Your task to perform on an android device: turn notification dots on Image 0: 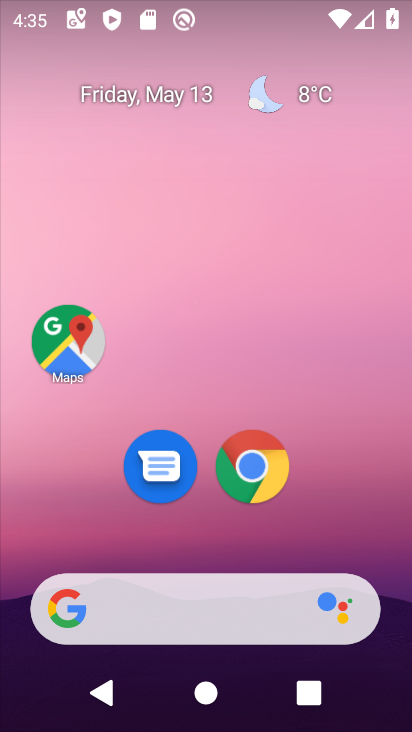
Step 0: click (257, 460)
Your task to perform on an android device: turn notification dots on Image 1: 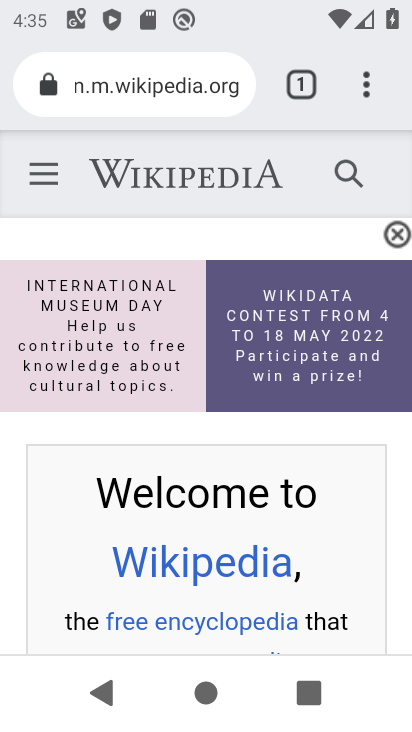
Step 1: press home button
Your task to perform on an android device: turn notification dots on Image 2: 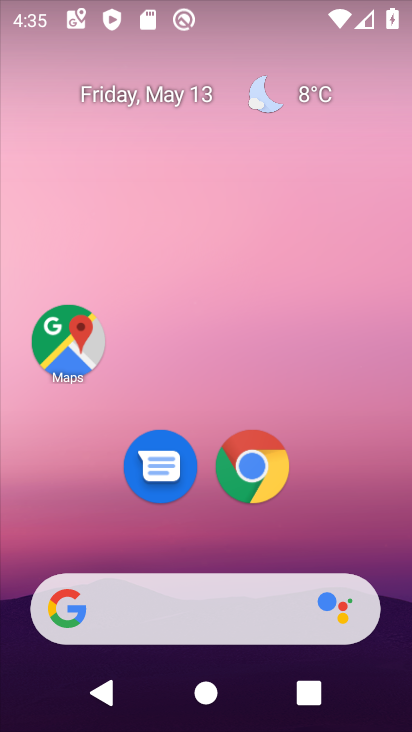
Step 2: drag from (386, 597) to (292, 45)
Your task to perform on an android device: turn notification dots on Image 3: 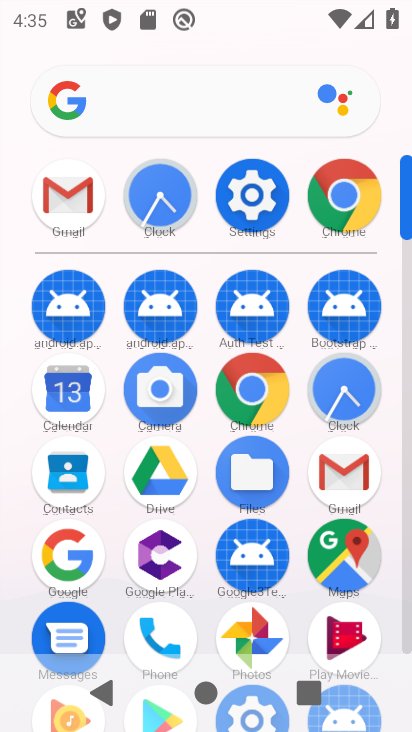
Step 3: click (252, 204)
Your task to perform on an android device: turn notification dots on Image 4: 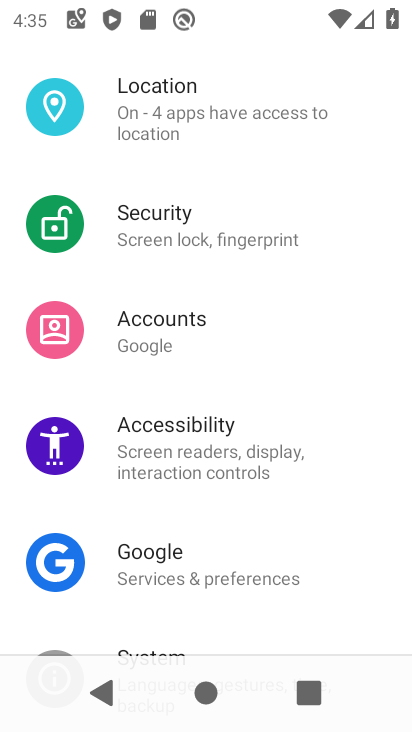
Step 4: drag from (329, 152) to (281, 597)
Your task to perform on an android device: turn notification dots on Image 5: 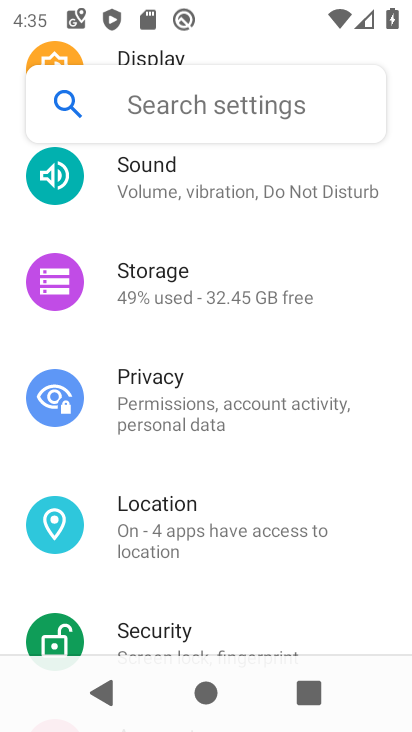
Step 5: drag from (326, 231) to (288, 607)
Your task to perform on an android device: turn notification dots on Image 6: 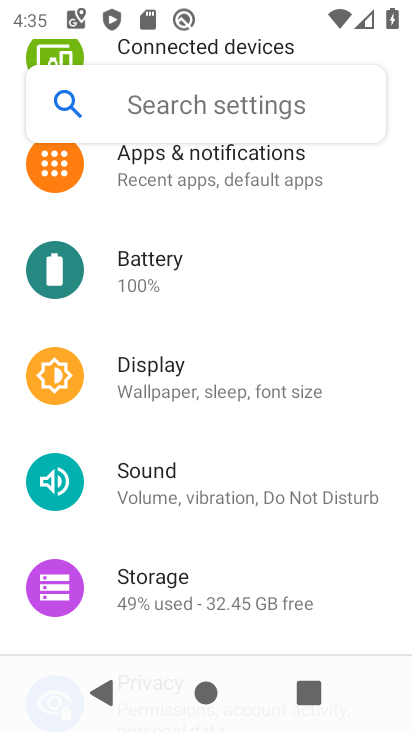
Step 6: click (196, 189)
Your task to perform on an android device: turn notification dots on Image 7: 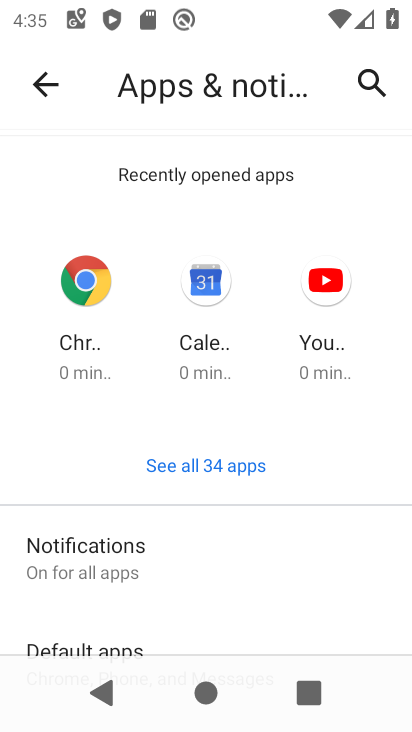
Step 7: click (113, 549)
Your task to perform on an android device: turn notification dots on Image 8: 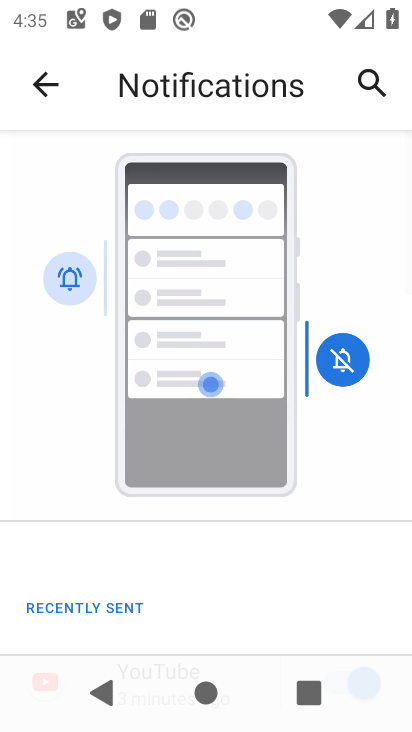
Step 8: drag from (298, 597) to (187, 81)
Your task to perform on an android device: turn notification dots on Image 9: 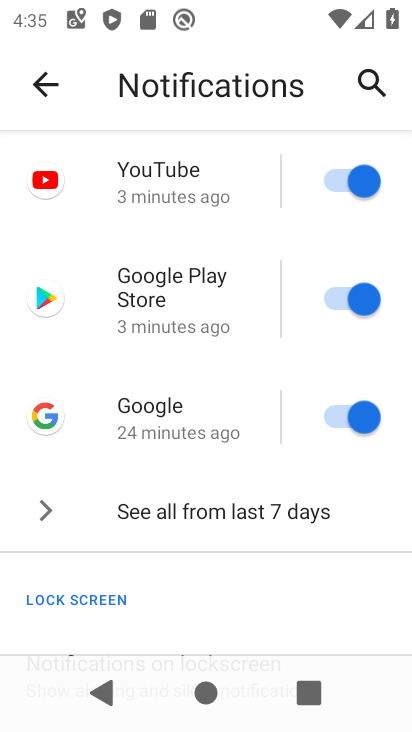
Step 9: drag from (215, 251) to (199, 76)
Your task to perform on an android device: turn notification dots on Image 10: 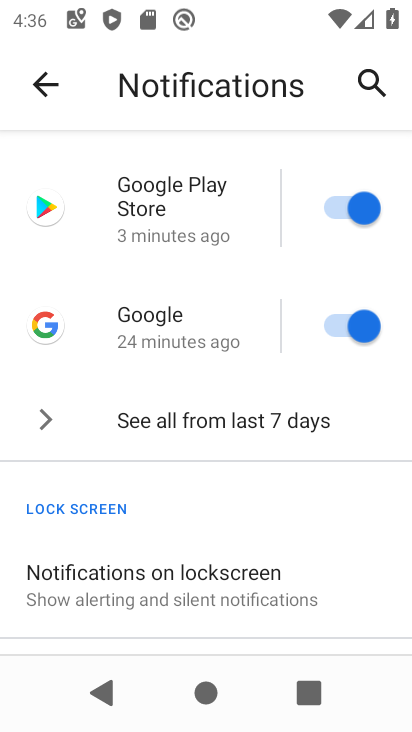
Step 10: drag from (181, 557) to (165, 151)
Your task to perform on an android device: turn notification dots on Image 11: 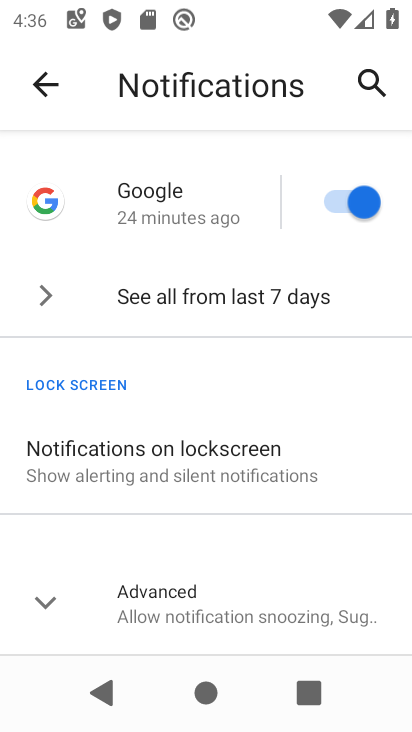
Step 11: click (44, 608)
Your task to perform on an android device: turn notification dots on Image 12: 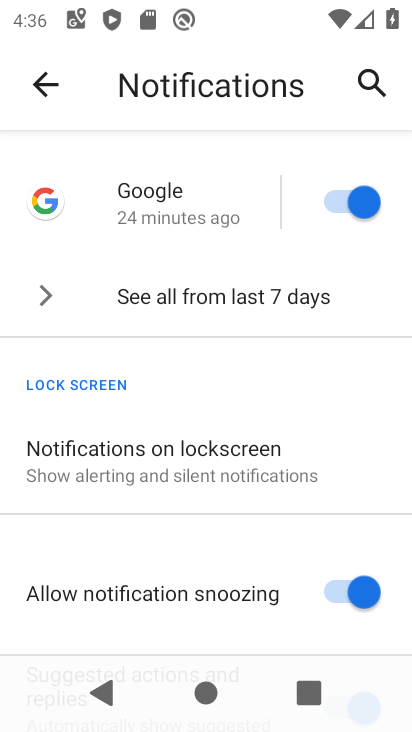
Step 12: drag from (201, 634) to (246, 140)
Your task to perform on an android device: turn notification dots on Image 13: 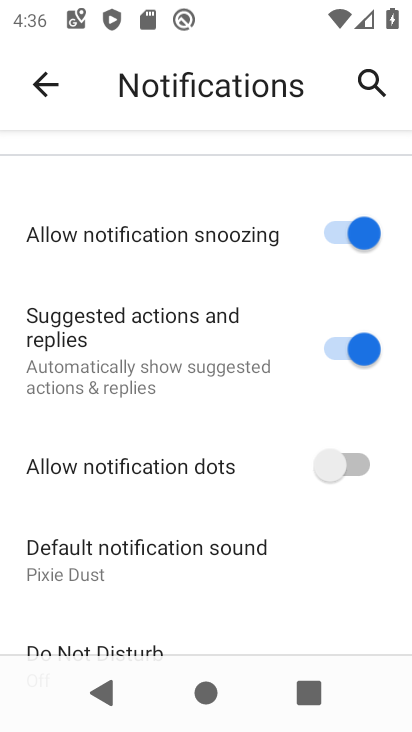
Step 13: click (359, 468)
Your task to perform on an android device: turn notification dots on Image 14: 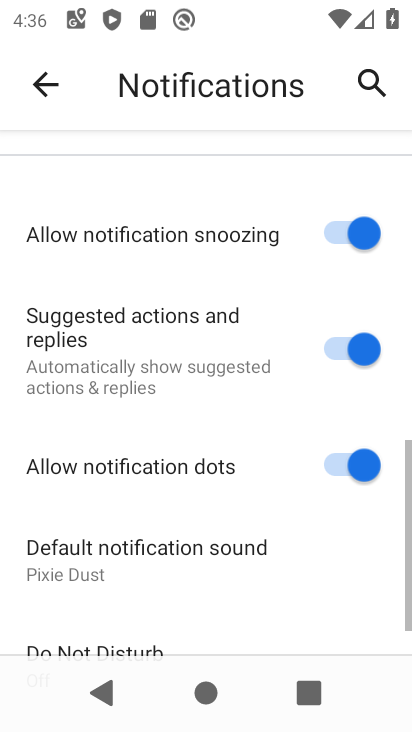
Step 14: task complete